Your task to perform on an android device: change alarm snooze length Image 0: 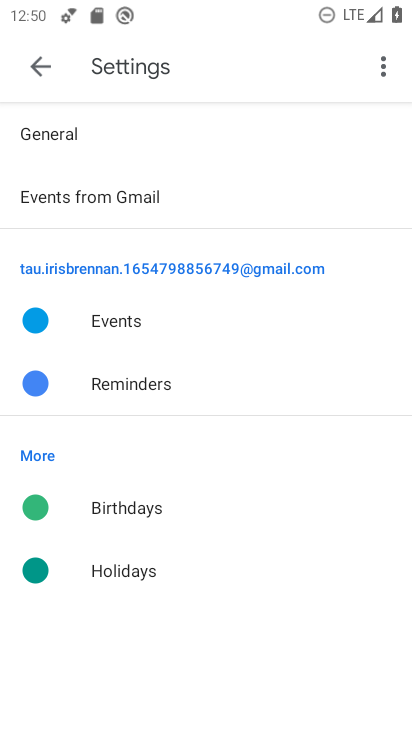
Step 0: press home button
Your task to perform on an android device: change alarm snooze length Image 1: 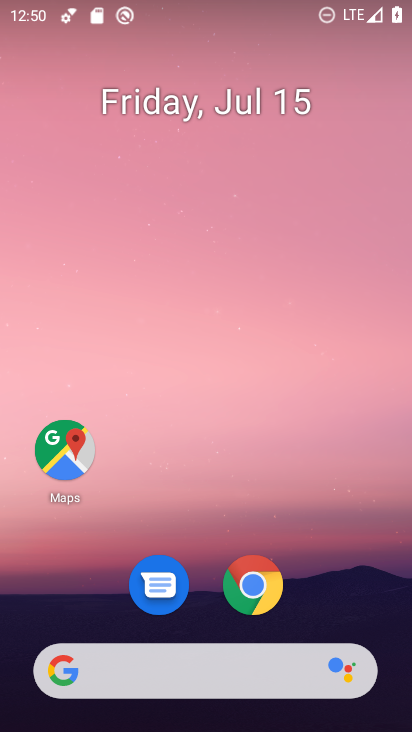
Step 1: drag from (325, 560) to (341, 72)
Your task to perform on an android device: change alarm snooze length Image 2: 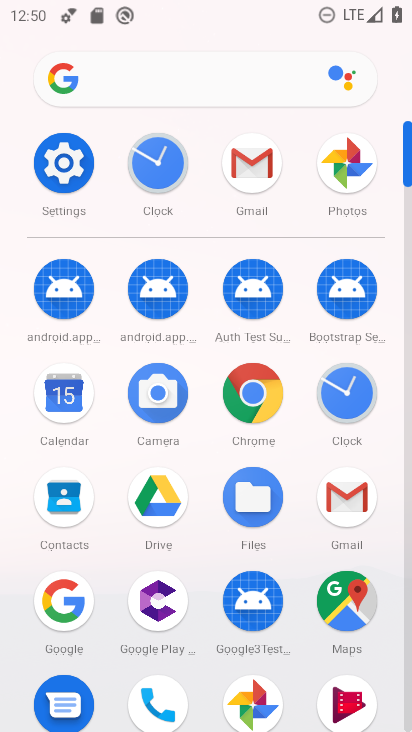
Step 2: click (345, 393)
Your task to perform on an android device: change alarm snooze length Image 3: 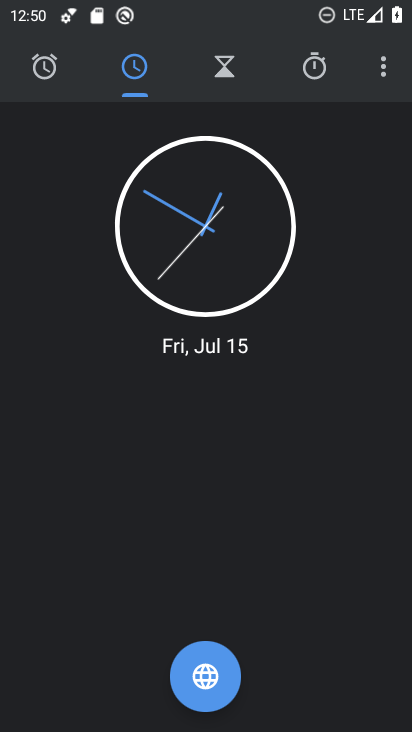
Step 3: click (379, 67)
Your task to perform on an android device: change alarm snooze length Image 4: 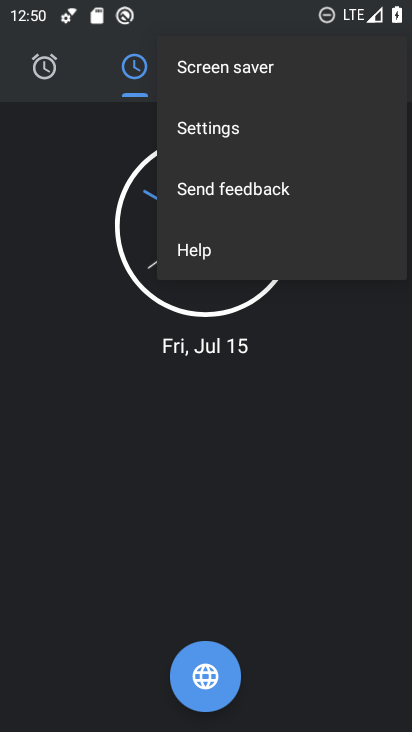
Step 4: click (271, 130)
Your task to perform on an android device: change alarm snooze length Image 5: 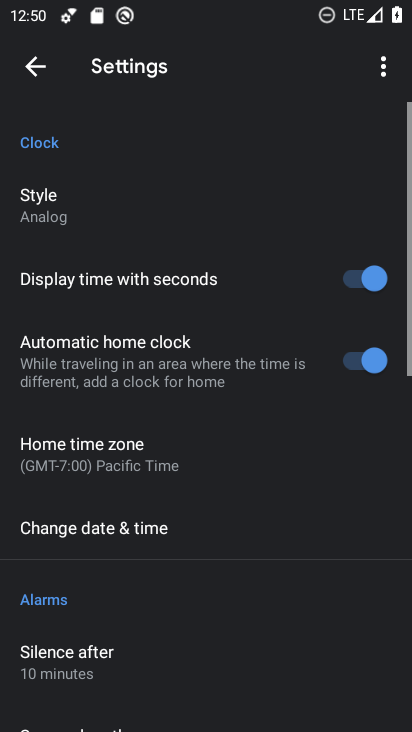
Step 5: drag from (198, 579) to (255, 199)
Your task to perform on an android device: change alarm snooze length Image 6: 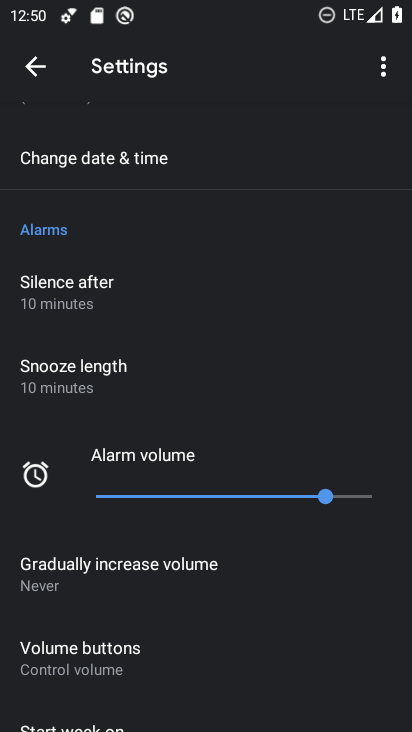
Step 6: click (115, 369)
Your task to perform on an android device: change alarm snooze length Image 7: 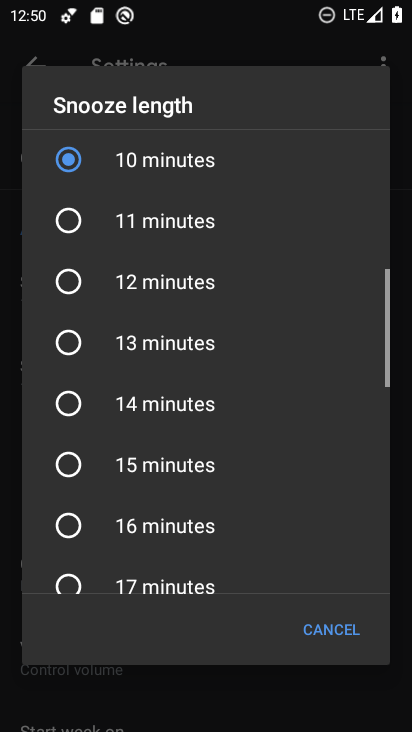
Step 7: click (101, 278)
Your task to perform on an android device: change alarm snooze length Image 8: 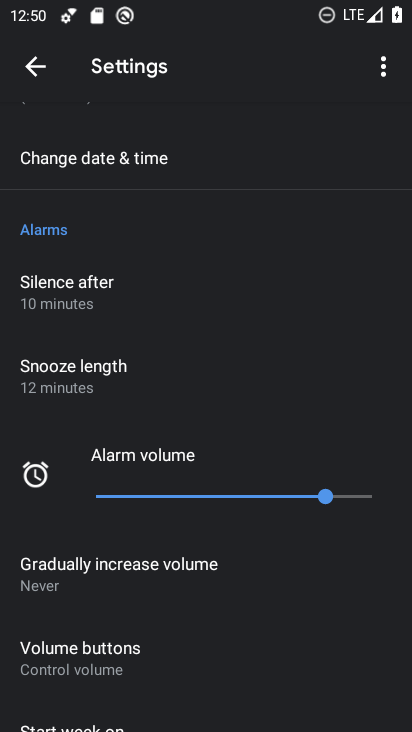
Step 8: task complete